Your task to perform on an android device: Go to CNN.com Image 0: 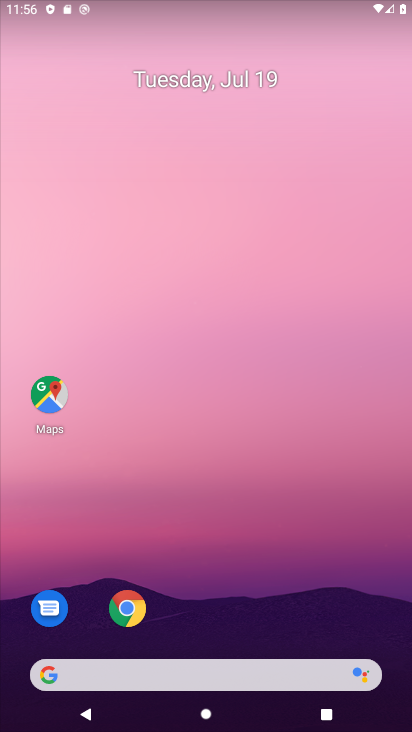
Step 0: click (126, 609)
Your task to perform on an android device: Go to CNN.com Image 1: 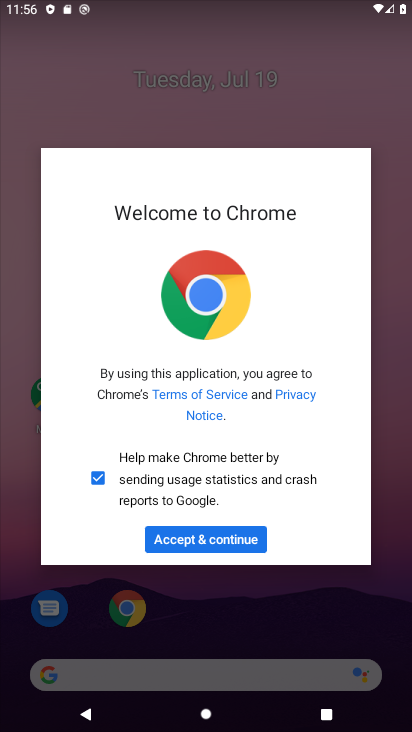
Step 1: click (198, 539)
Your task to perform on an android device: Go to CNN.com Image 2: 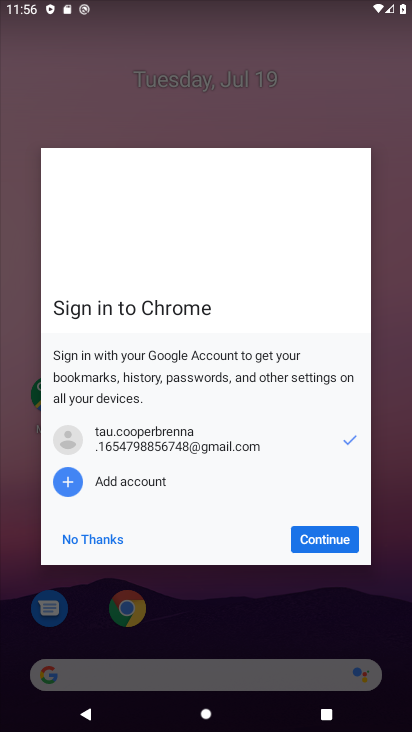
Step 2: click (323, 538)
Your task to perform on an android device: Go to CNN.com Image 3: 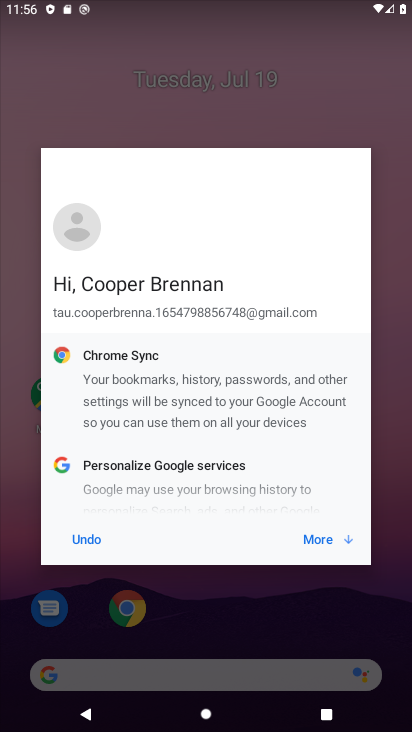
Step 3: click (323, 538)
Your task to perform on an android device: Go to CNN.com Image 4: 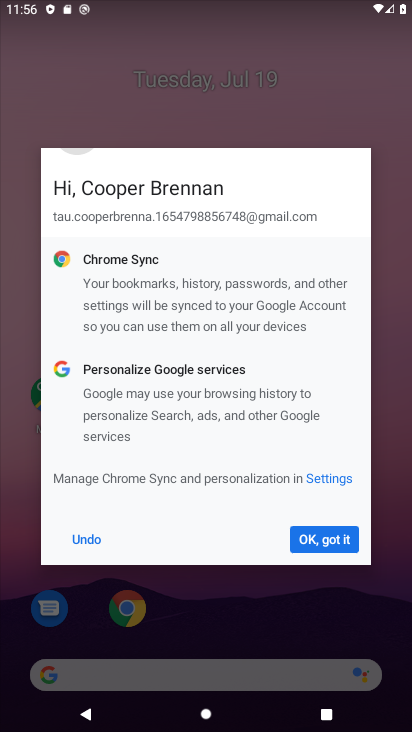
Step 4: click (323, 538)
Your task to perform on an android device: Go to CNN.com Image 5: 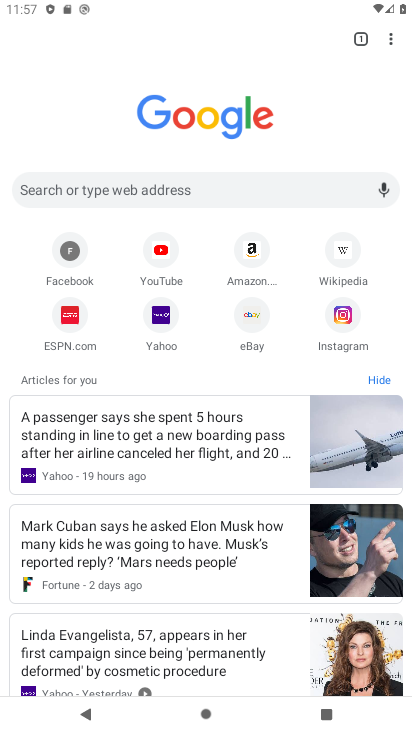
Step 5: click (232, 186)
Your task to perform on an android device: Go to CNN.com Image 6: 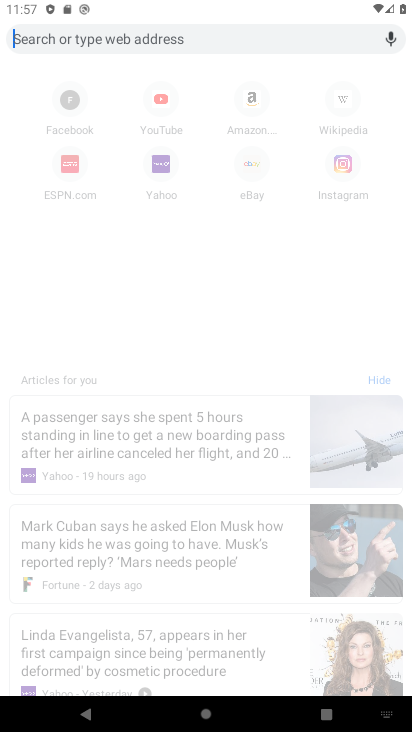
Step 6: type "CNN.com"
Your task to perform on an android device: Go to CNN.com Image 7: 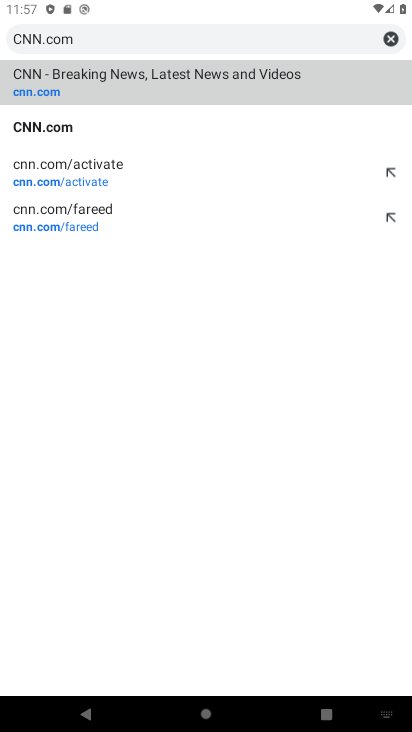
Step 7: click (69, 129)
Your task to perform on an android device: Go to CNN.com Image 8: 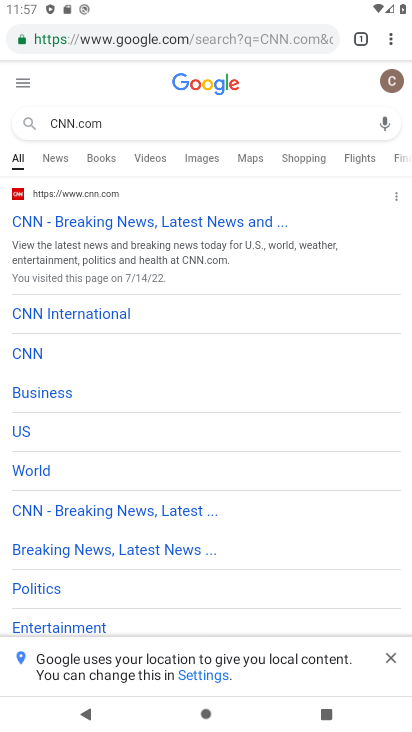
Step 8: click (99, 227)
Your task to perform on an android device: Go to CNN.com Image 9: 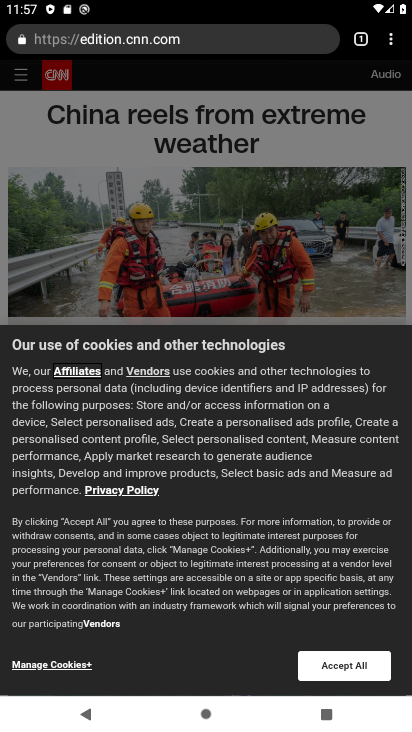
Step 9: click (340, 664)
Your task to perform on an android device: Go to CNN.com Image 10: 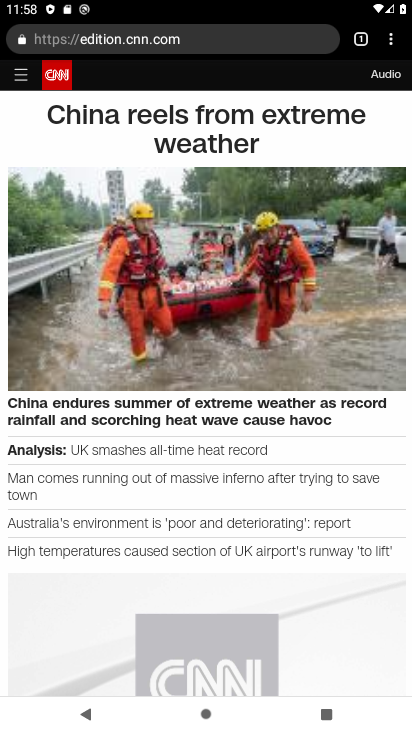
Step 10: task complete